Your task to perform on an android device: refresh tabs in the chrome app Image 0: 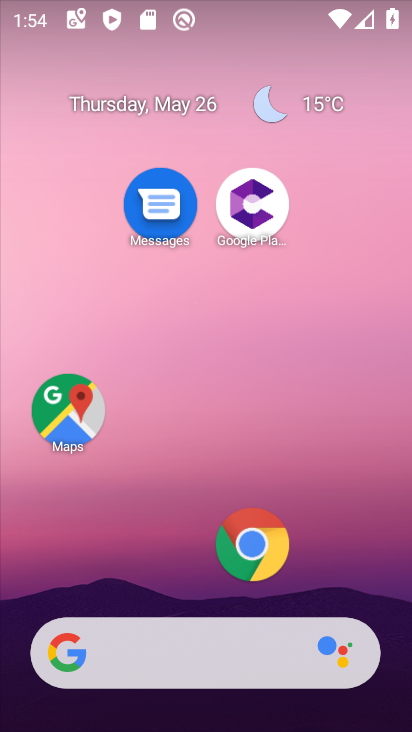
Step 0: click (255, 546)
Your task to perform on an android device: refresh tabs in the chrome app Image 1: 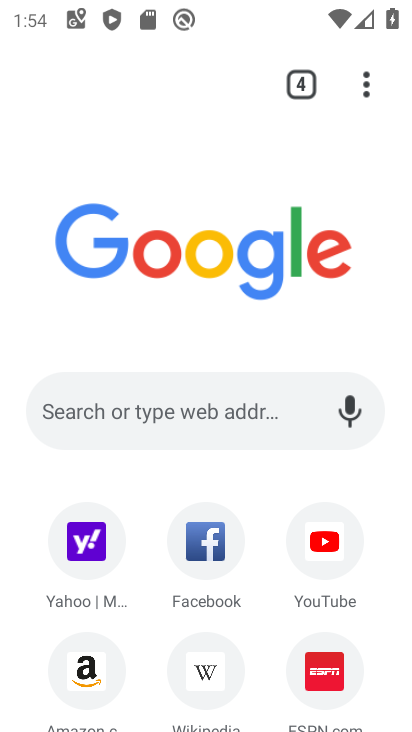
Step 1: click (385, 101)
Your task to perform on an android device: refresh tabs in the chrome app Image 2: 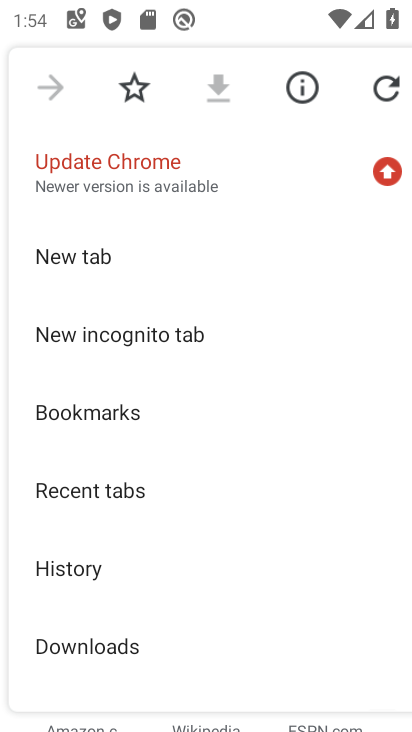
Step 2: click (385, 101)
Your task to perform on an android device: refresh tabs in the chrome app Image 3: 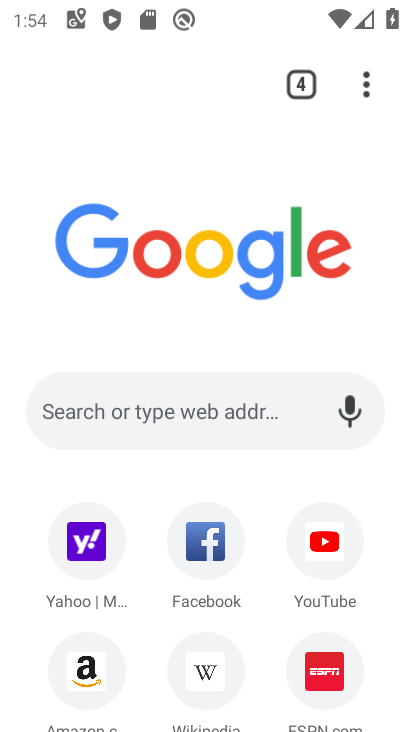
Step 3: task complete